Your task to perform on an android device: change the upload size in google photos Image 0: 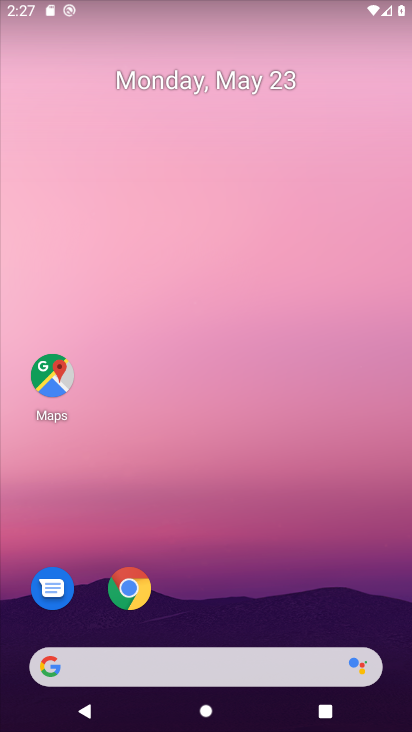
Step 0: click (301, 164)
Your task to perform on an android device: change the upload size in google photos Image 1: 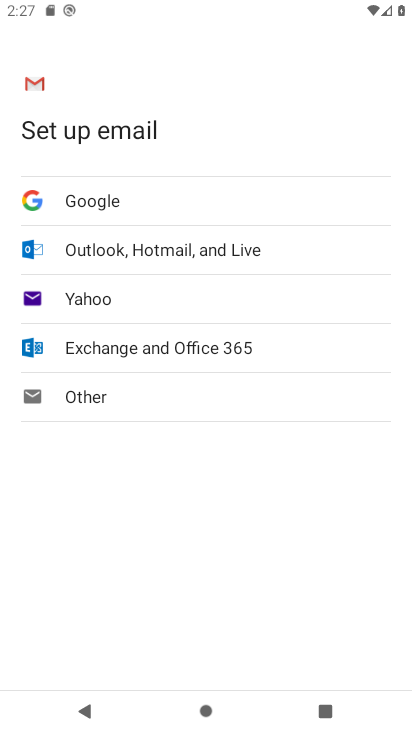
Step 1: click (256, 619)
Your task to perform on an android device: change the upload size in google photos Image 2: 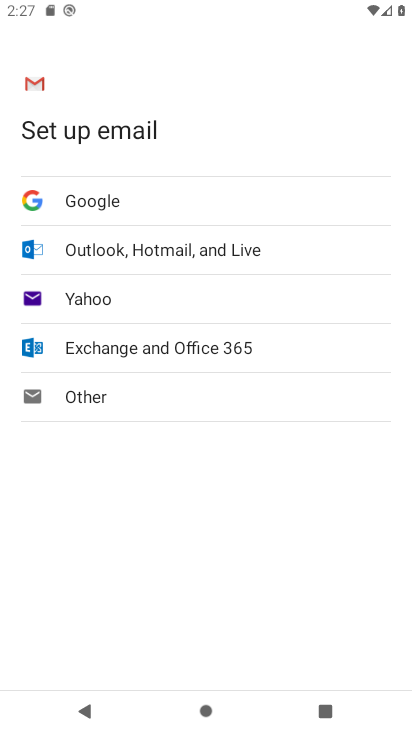
Step 2: press home button
Your task to perform on an android device: change the upload size in google photos Image 3: 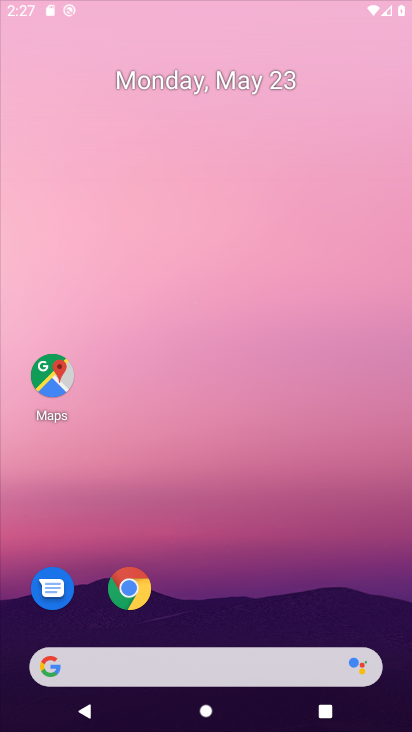
Step 3: drag from (217, 659) to (308, 116)
Your task to perform on an android device: change the upload size in google photos Image 4: 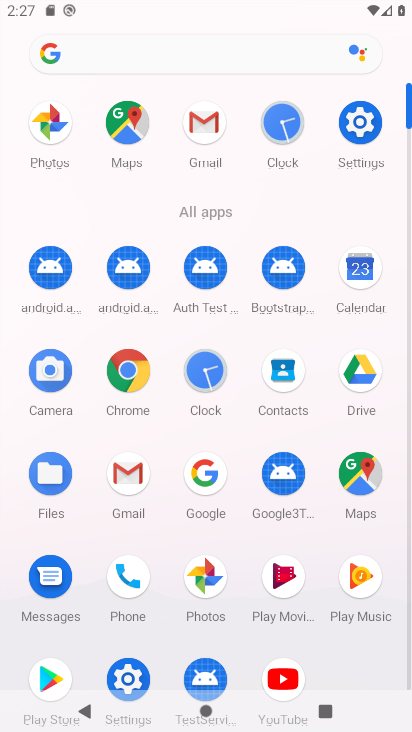
Step 4: click (219, 585)
Your task to perform on an android device: change the upload size in google photos Image 5: 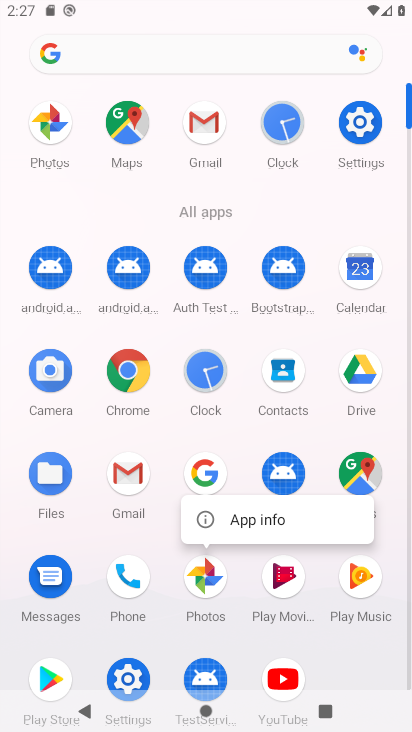
Step 5: click (227, 517)
Your task to perform on an android device: change the upload size in google photos Image 6: 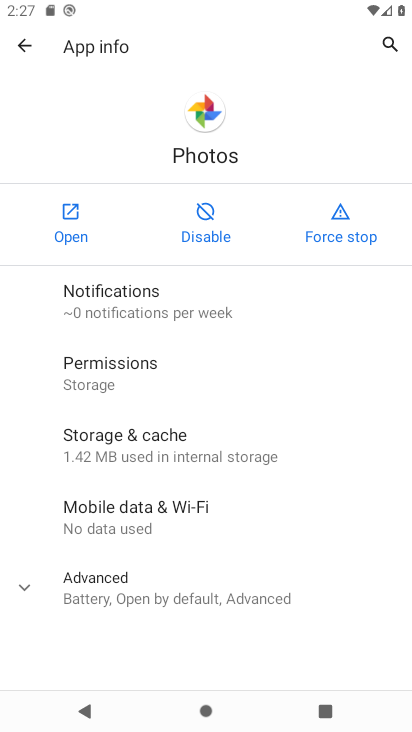
Step 6: click (71, 234)
Your task to perform on an android device: change the upload size in google photos Image 7: 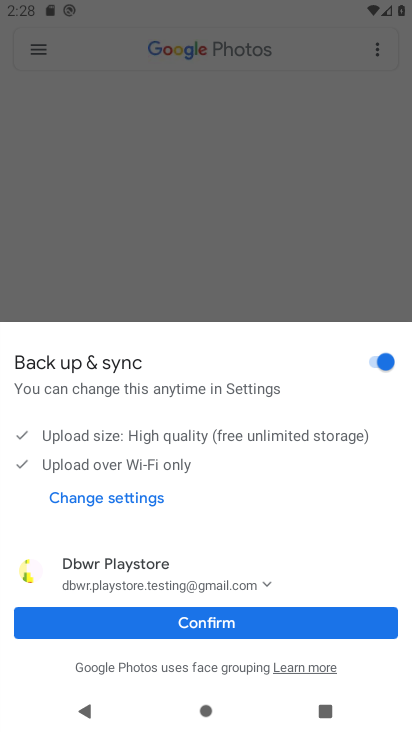
Step 7: click (183, 634)
Your task to perform on an android device: change the upload size in google photos Image 8: 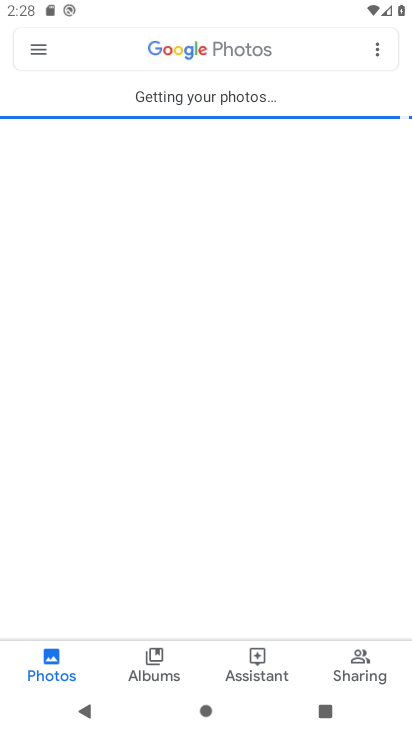
Step 8: click (31, 41)
Your task to perform on an android device: change the upload size in google photos Image 9: 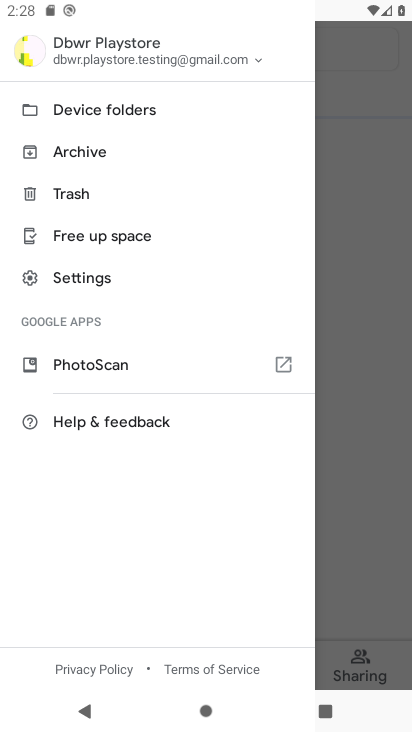
Step 9: click (87, 280)
Your task to perform on an android device: change the upload size in google photos Image 10: 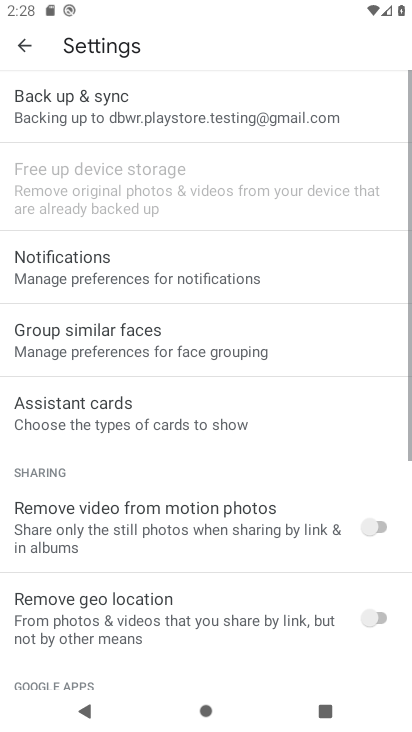
Step 10: click (162, 115)
Your task to perform on an android device: change the upload size in google photos Image 11: 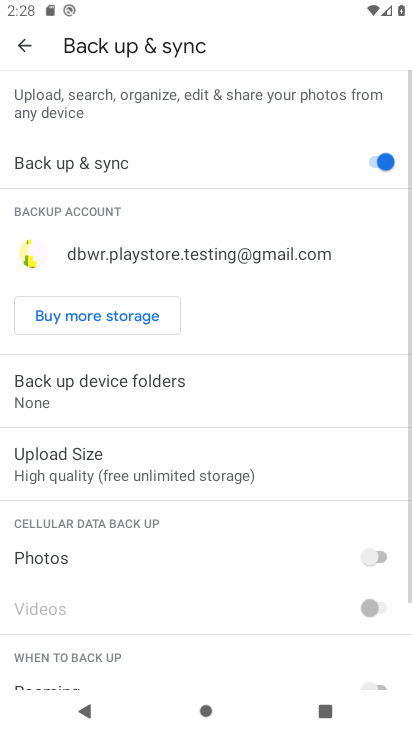
Step 11: click (82, 475)
Your task to perform on an android device: change the upload size in google photos Image 12: 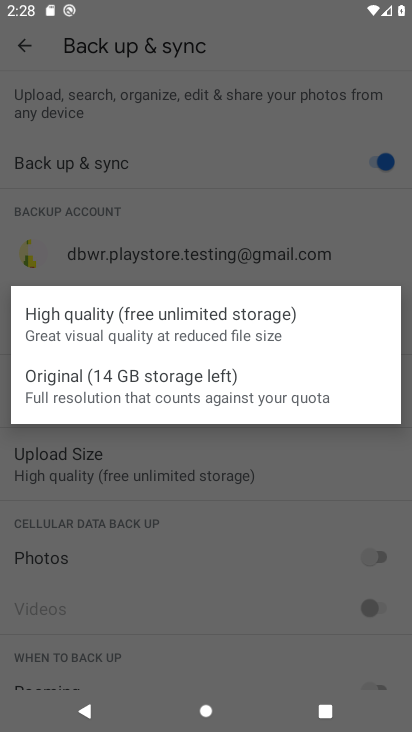
Step 12: click (225, 326)
Your task to perform on an android device: change the upload size in google photos Image 13: 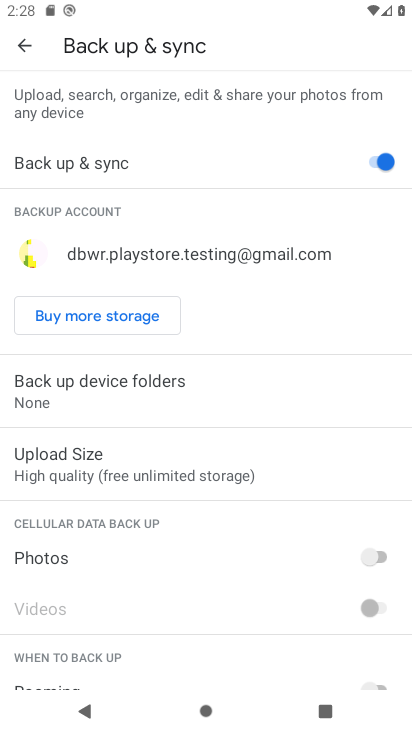
Step 13: task complete